Your task to perform on an android device: open app "DoorDash - Dasher" (install if not already installed) Image 0: 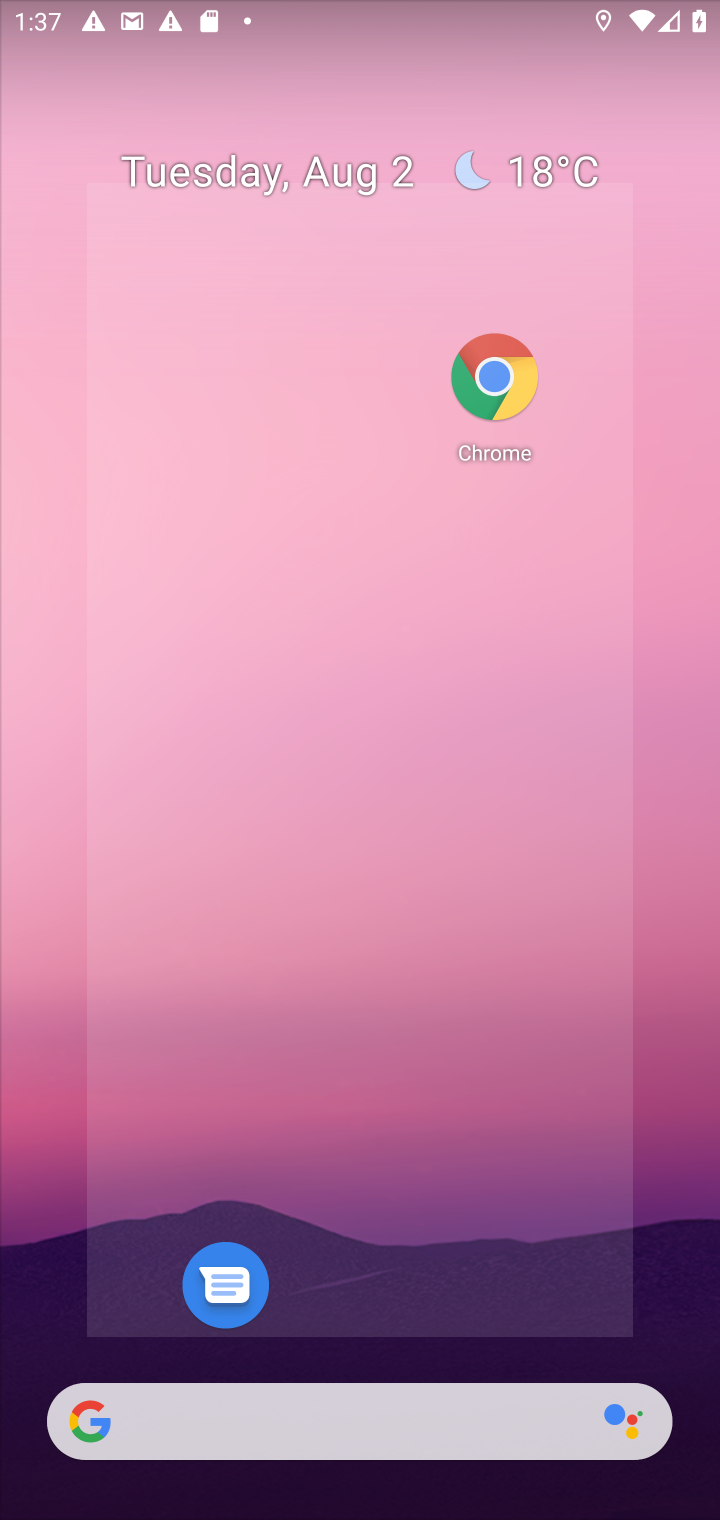
Step 0: press home button
Your task to perform on an android device: open app "DoorDash - Dasher" (install if not already installed) Image 1: 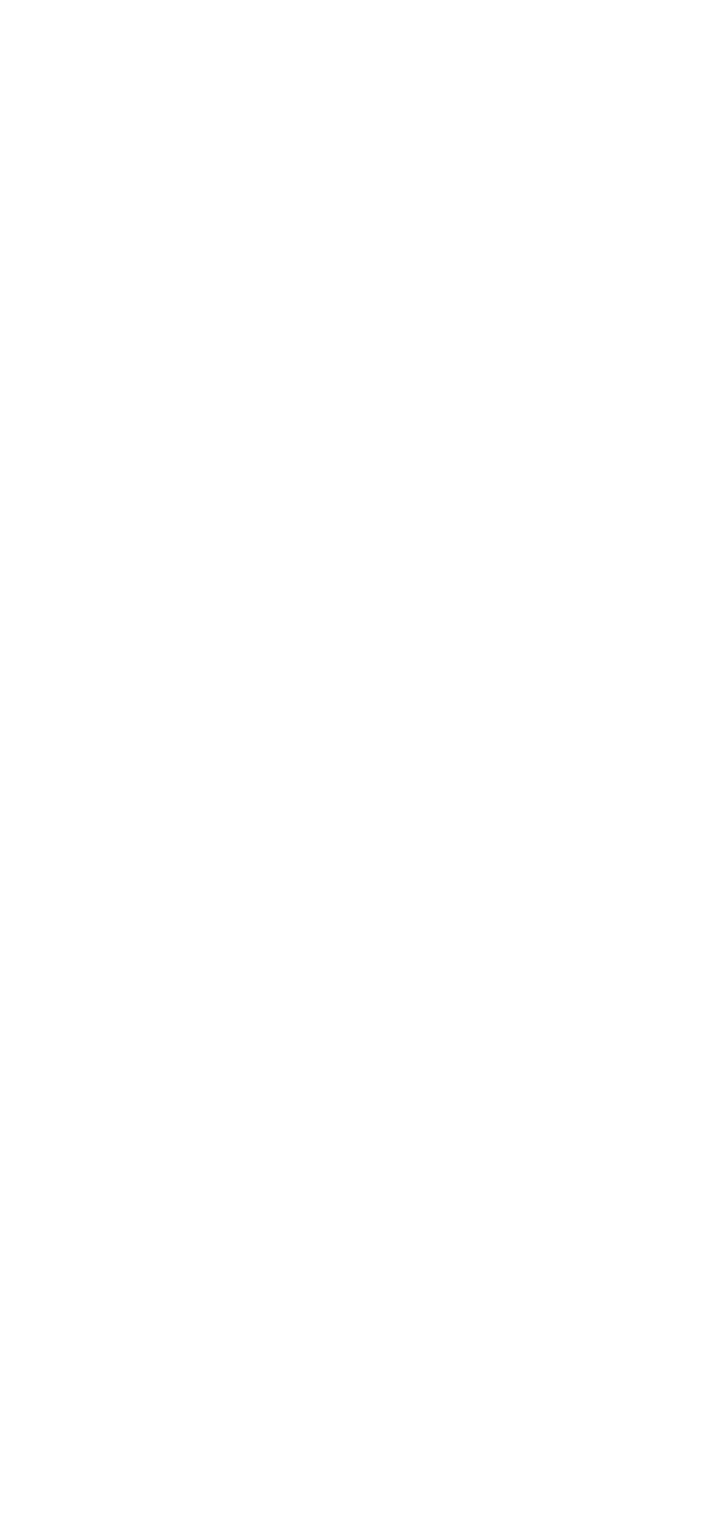
Step 1: press home button
Your task to perform on an android device: open app "DoorDash - Dasher" (install if not already installed) Image 2: 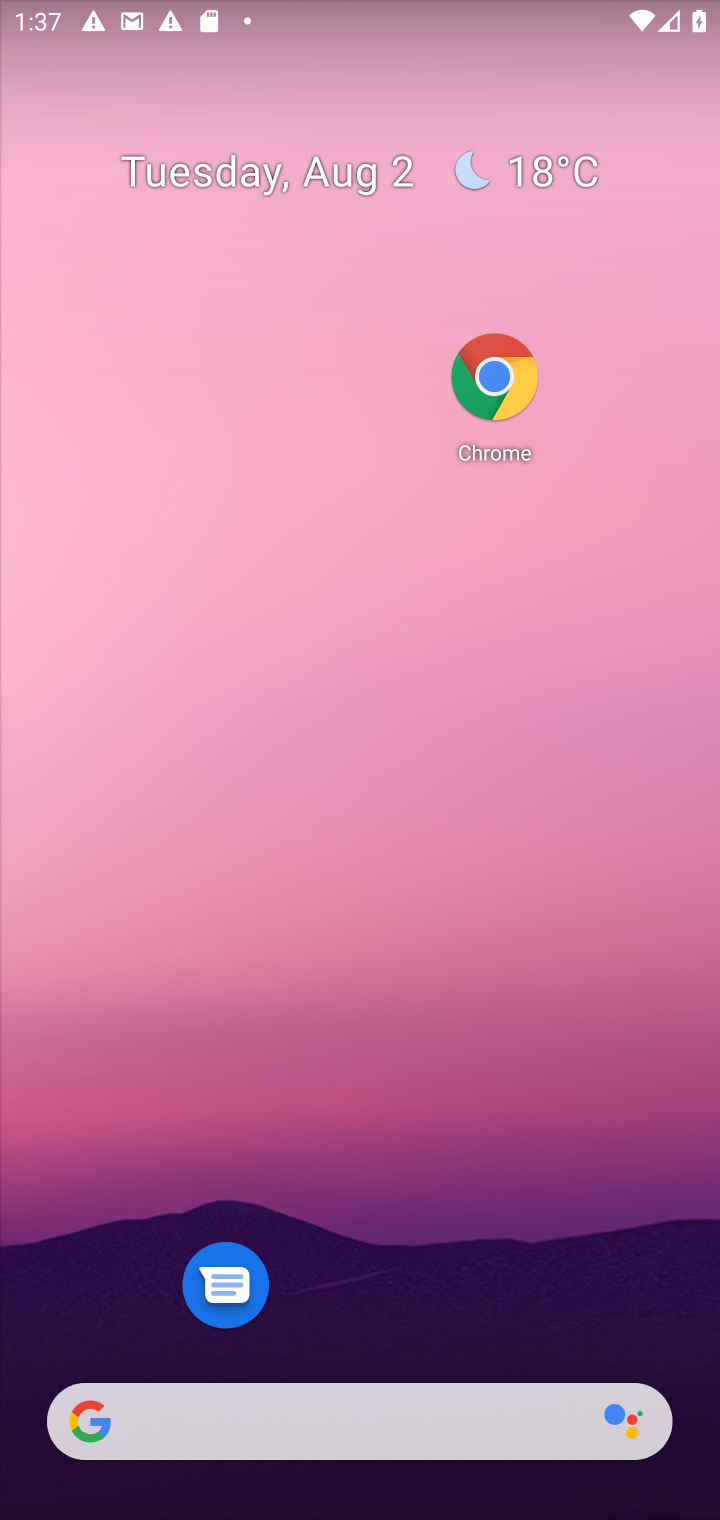
Step 2: press home button
Your task to perform on an android device: open app "DoorDash - Dasher" (install if not already installed) Image 3: 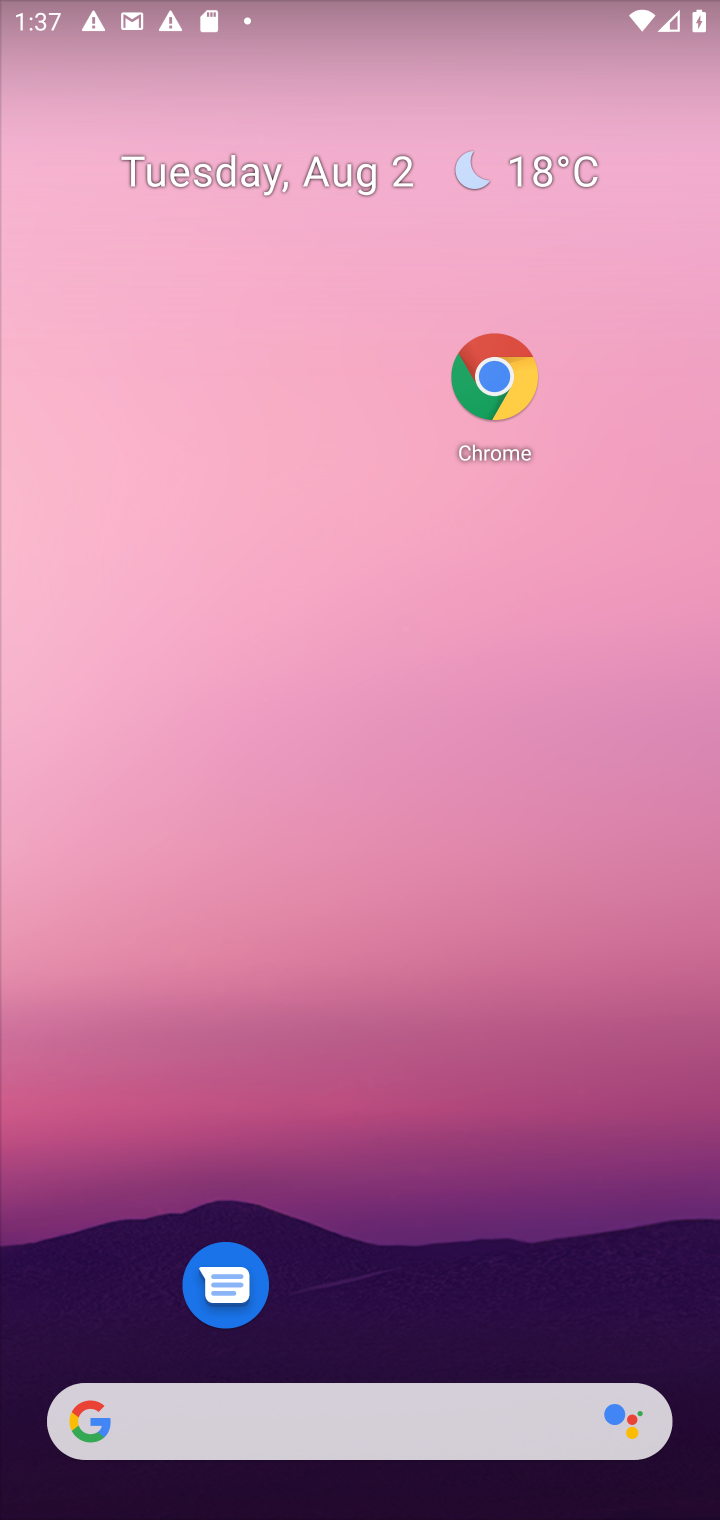
Step 3: drag from (561, 1316) to (572, 362)
Your task to perform on an android device: open app "DoorDash - Dasher" (install if not already installed) Image 4: 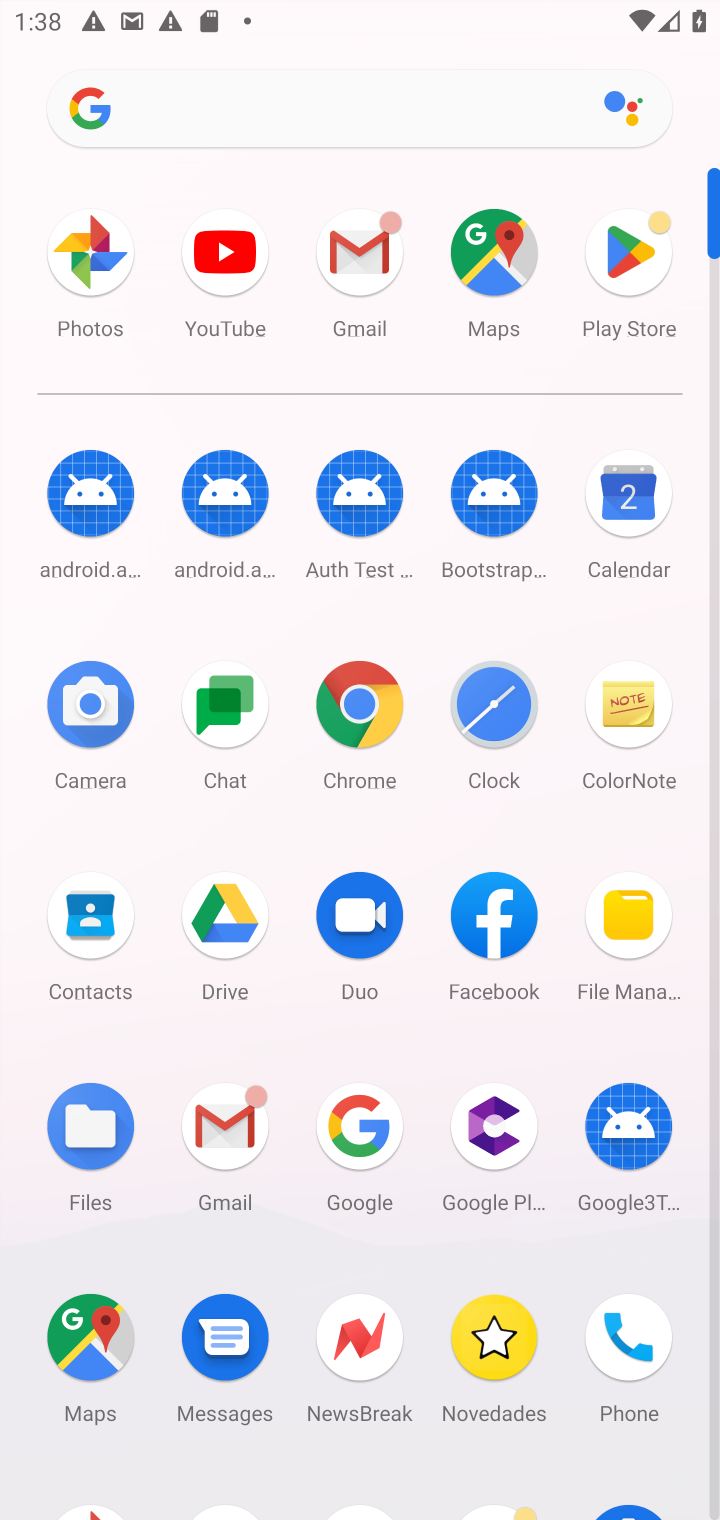
Step 4: click (641, 241)
Your task to perform on an android device: open app "DoorDash - Dasher" (install if not already installed) Image 5: 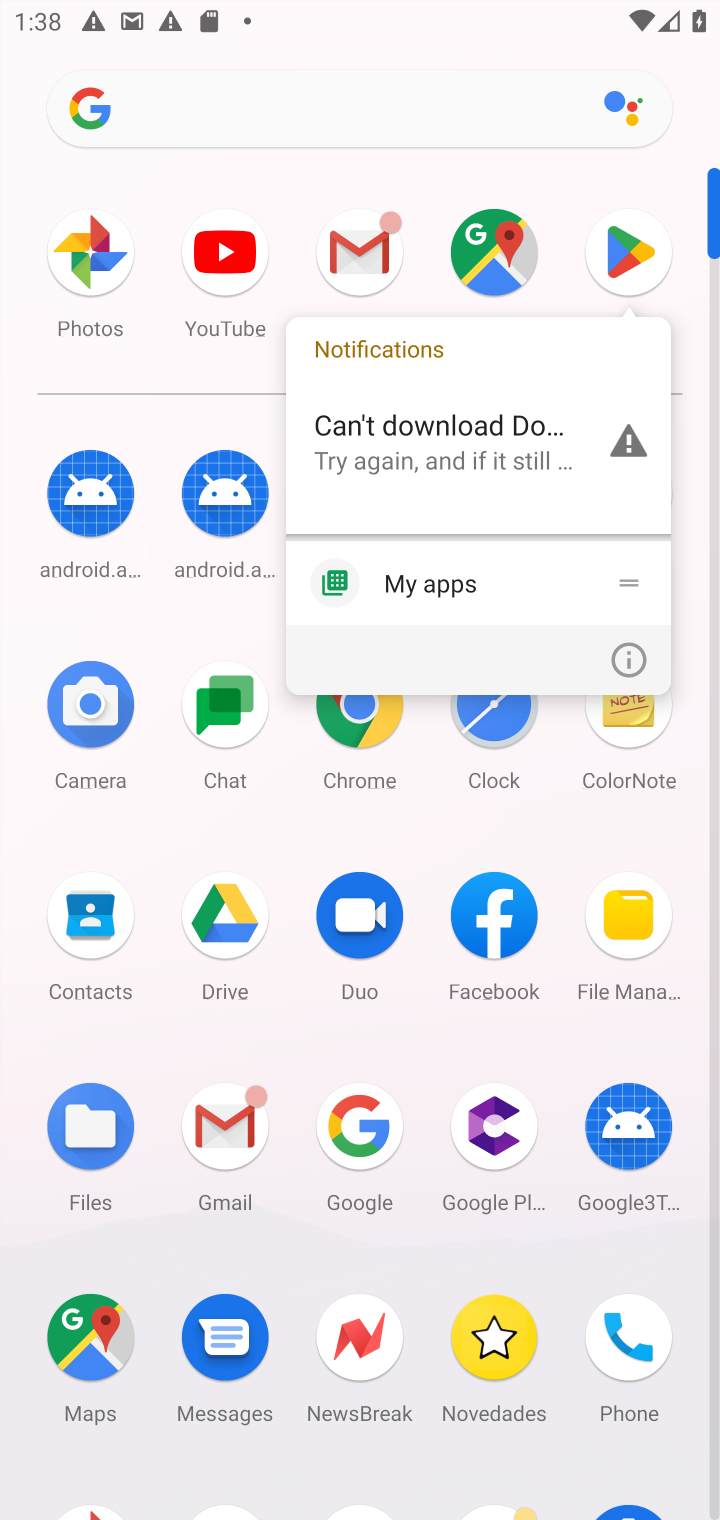
Step 5: click (641, 241)
Your task to perform on an android device: open app "DoorDash - Dasher" (install if not already installed) Image 6: 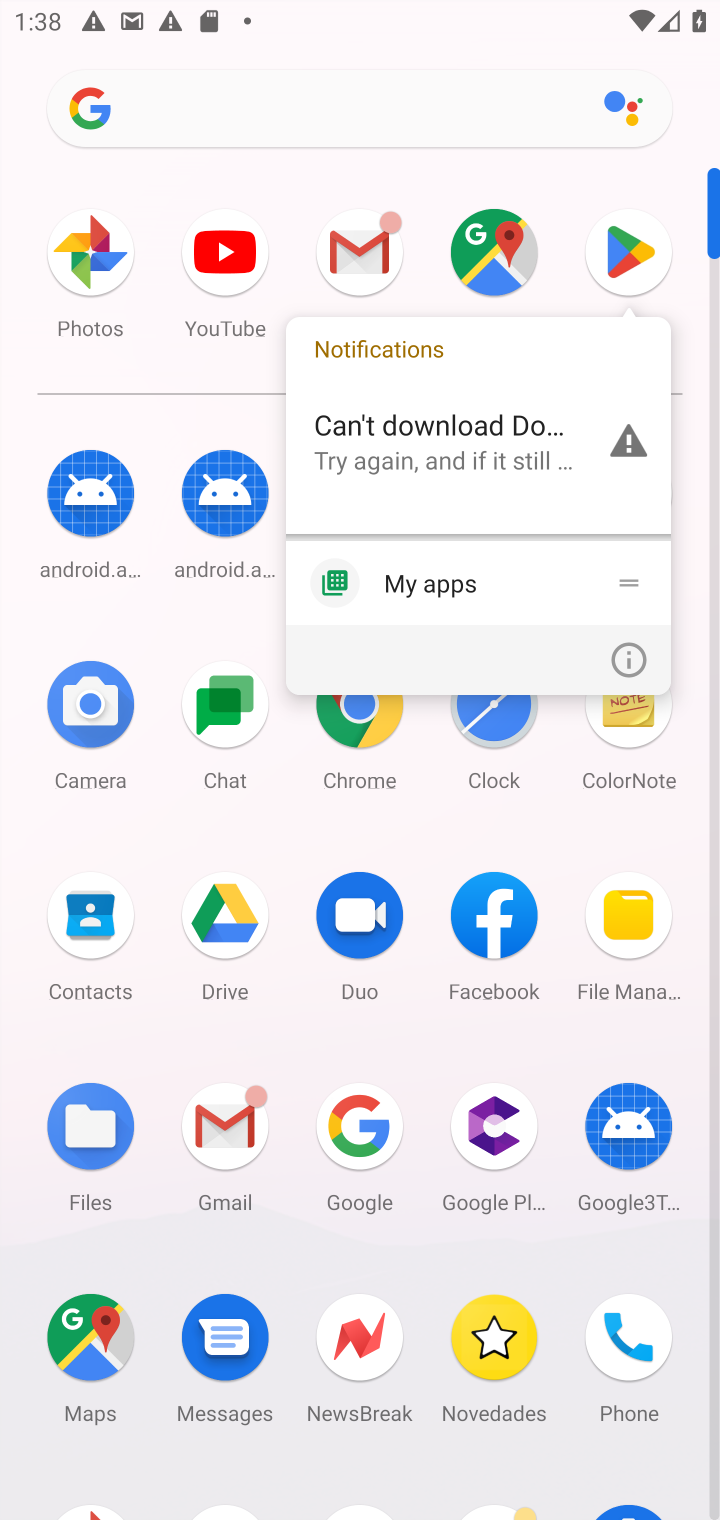
Step 6: click (641, 241)
Your task to perform on an android device: open app "DoorDash - Dasher" (install if not already installed) Image 7: 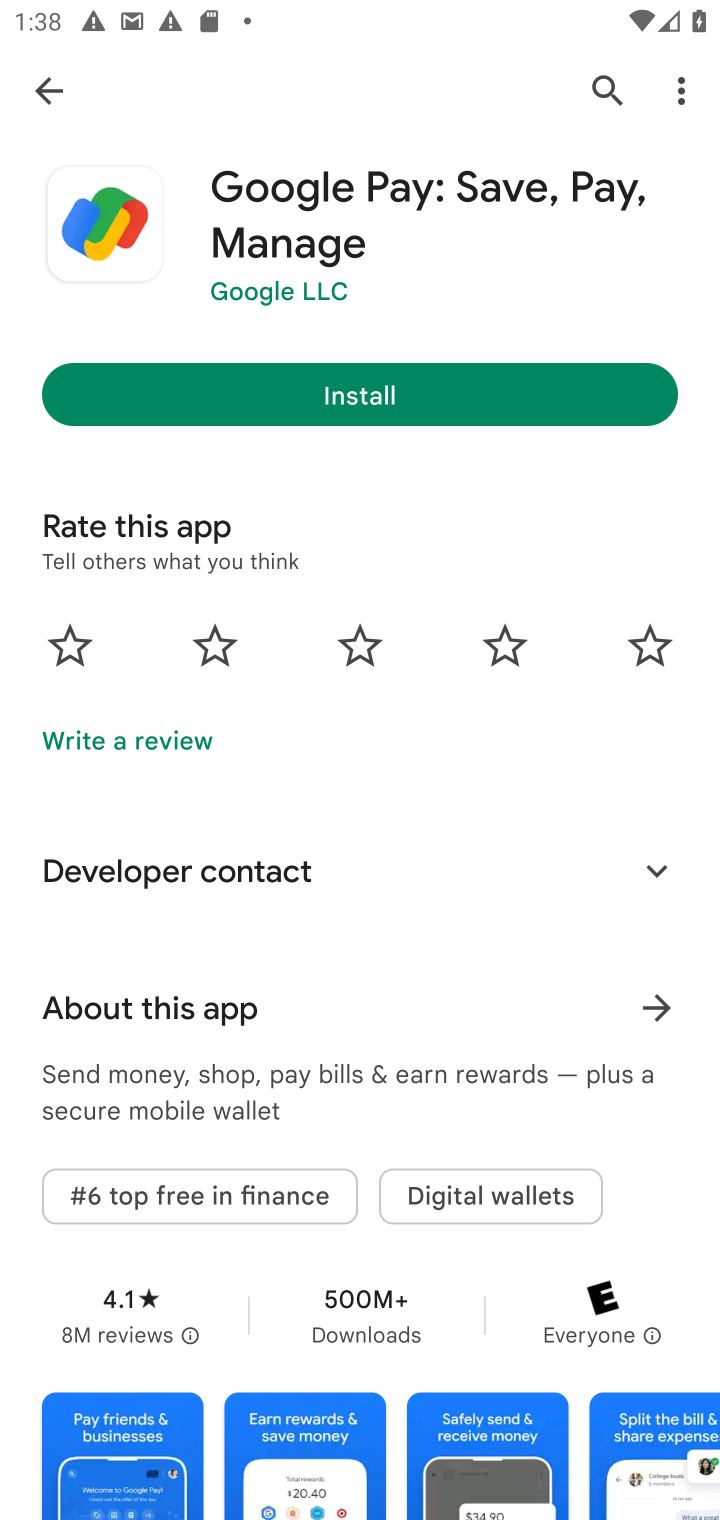
Step 7: click (591, 96)
Your task to perform on an android device: open app "DoorDash - Dasher" (install if not already installed) Image 8: 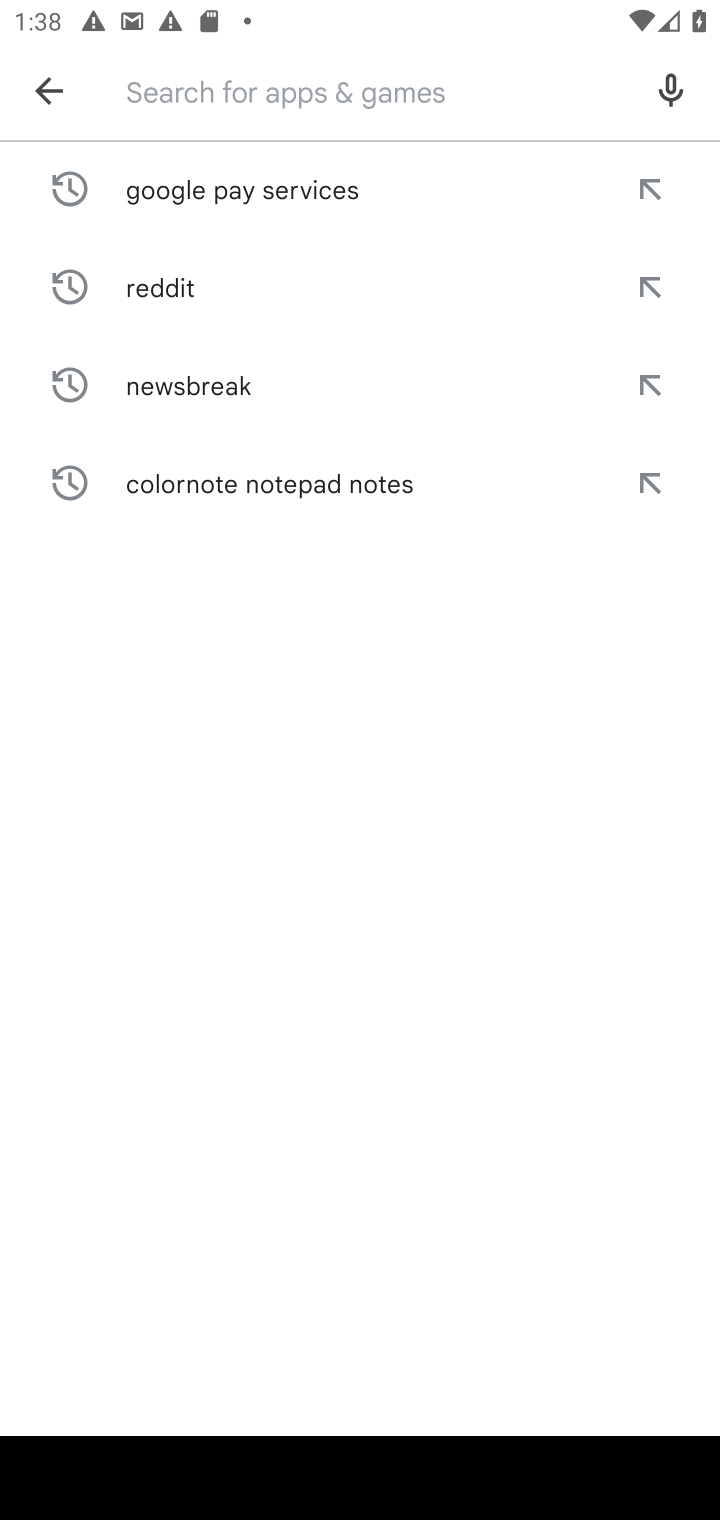
Step 8: click (243, 87)
Your task to perform on an android device: open app "DoorDash - Dasher" (install if not already installed) Image 9: 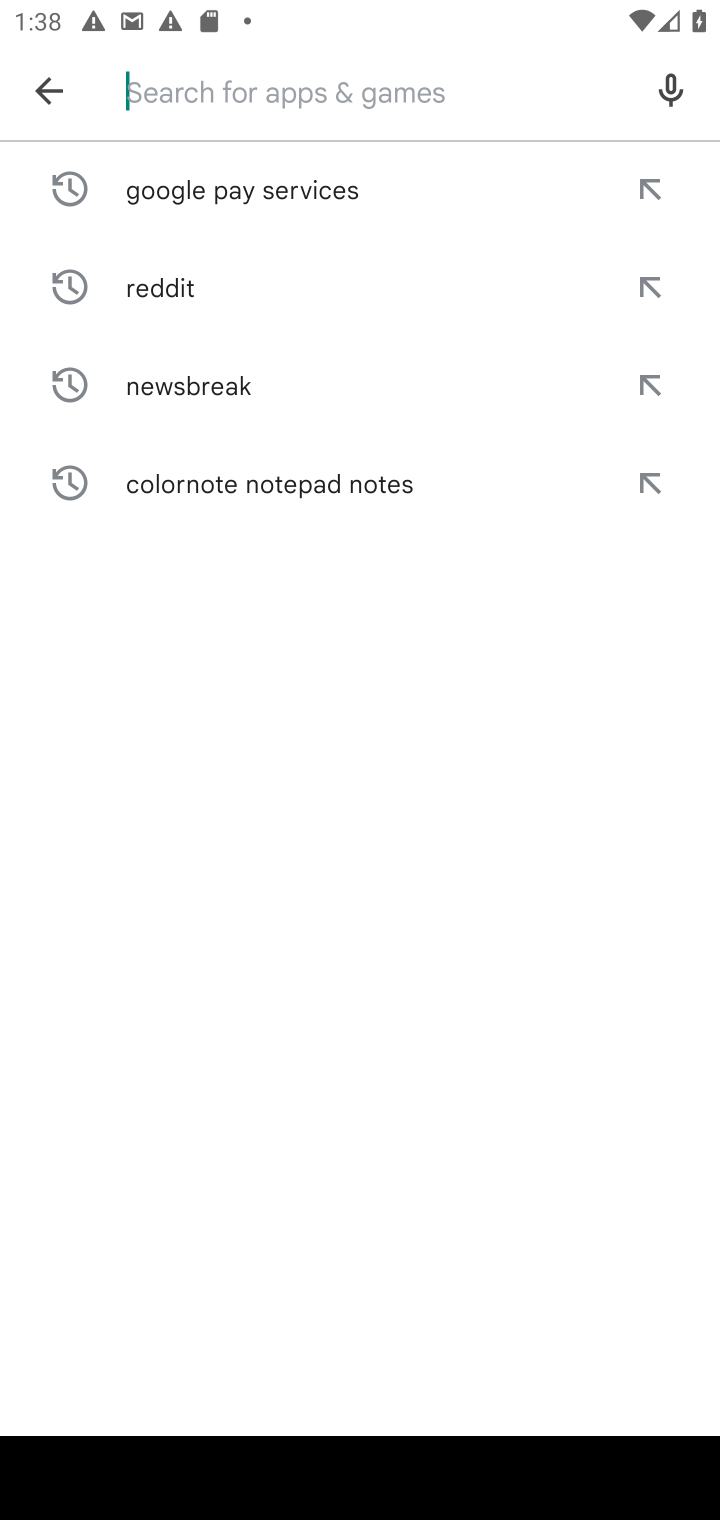
Step 9: type "DoorDash - Dasher"
Your task to perform on an android device: open app "DoorDash - Dasher" (install if not already installed) Image 10: 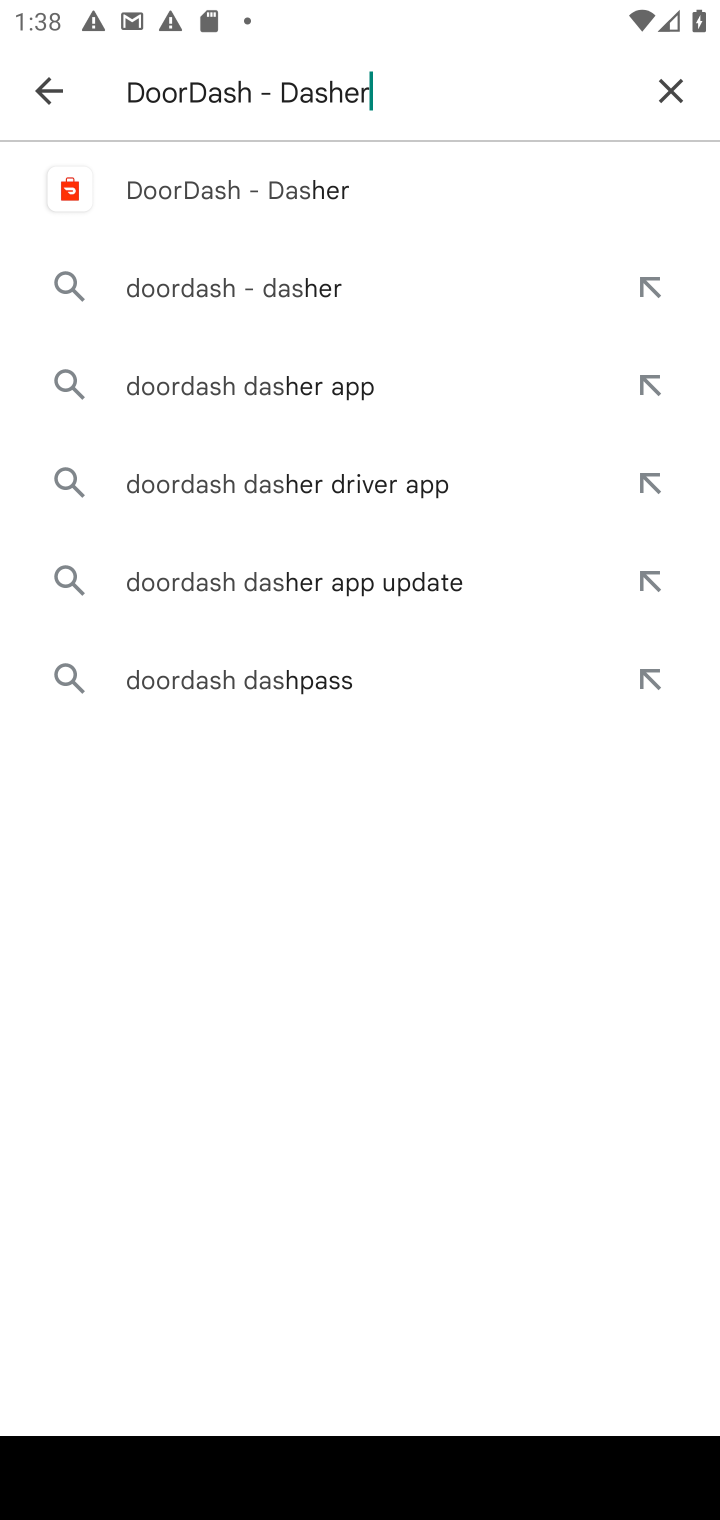
Step 10: type ""
Your task to perform on an android device: open app "DoorDash - Dasher" (install if not already installed) Image 11: 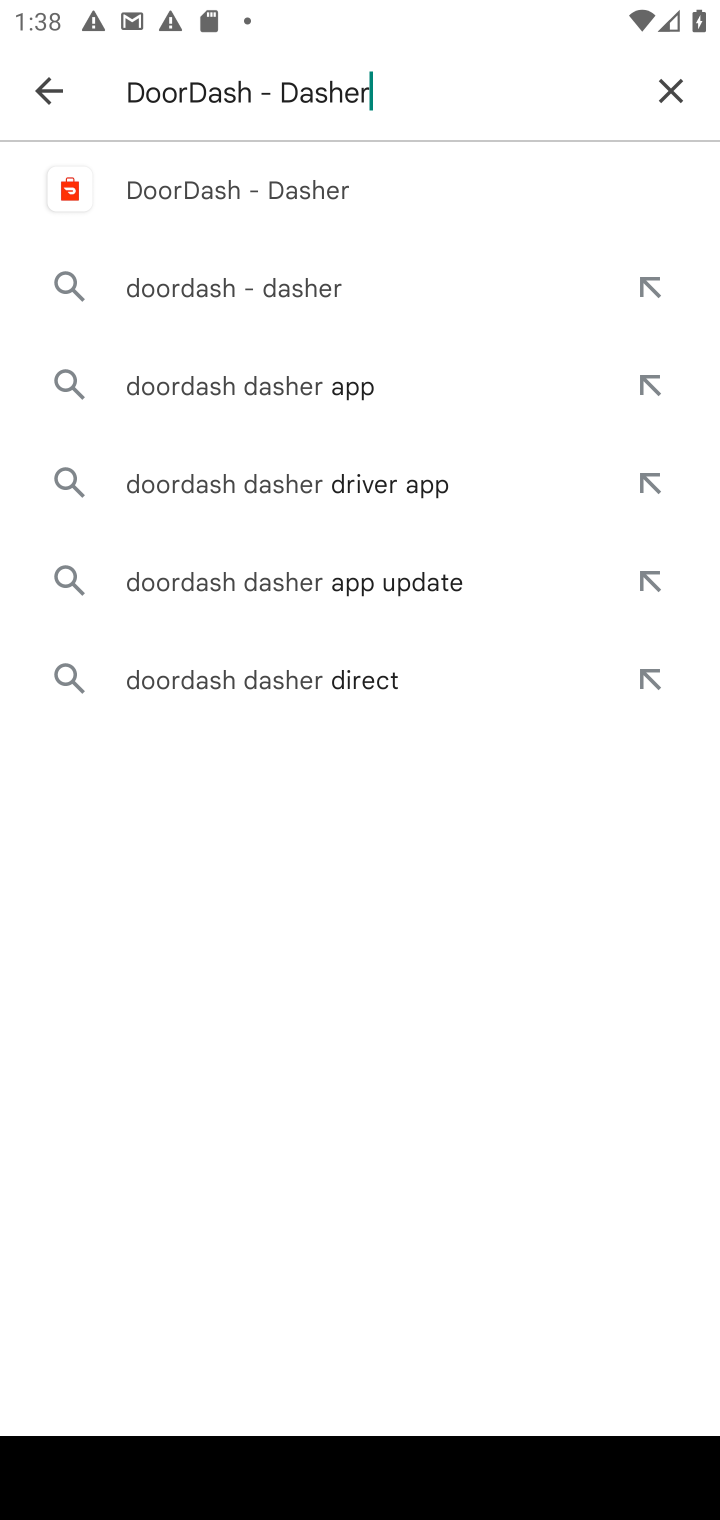
Step 11: click (268, 200)
Your task to perform on an android device: open app "DoorDash - Dasher" (install if not already installed) Image 12: 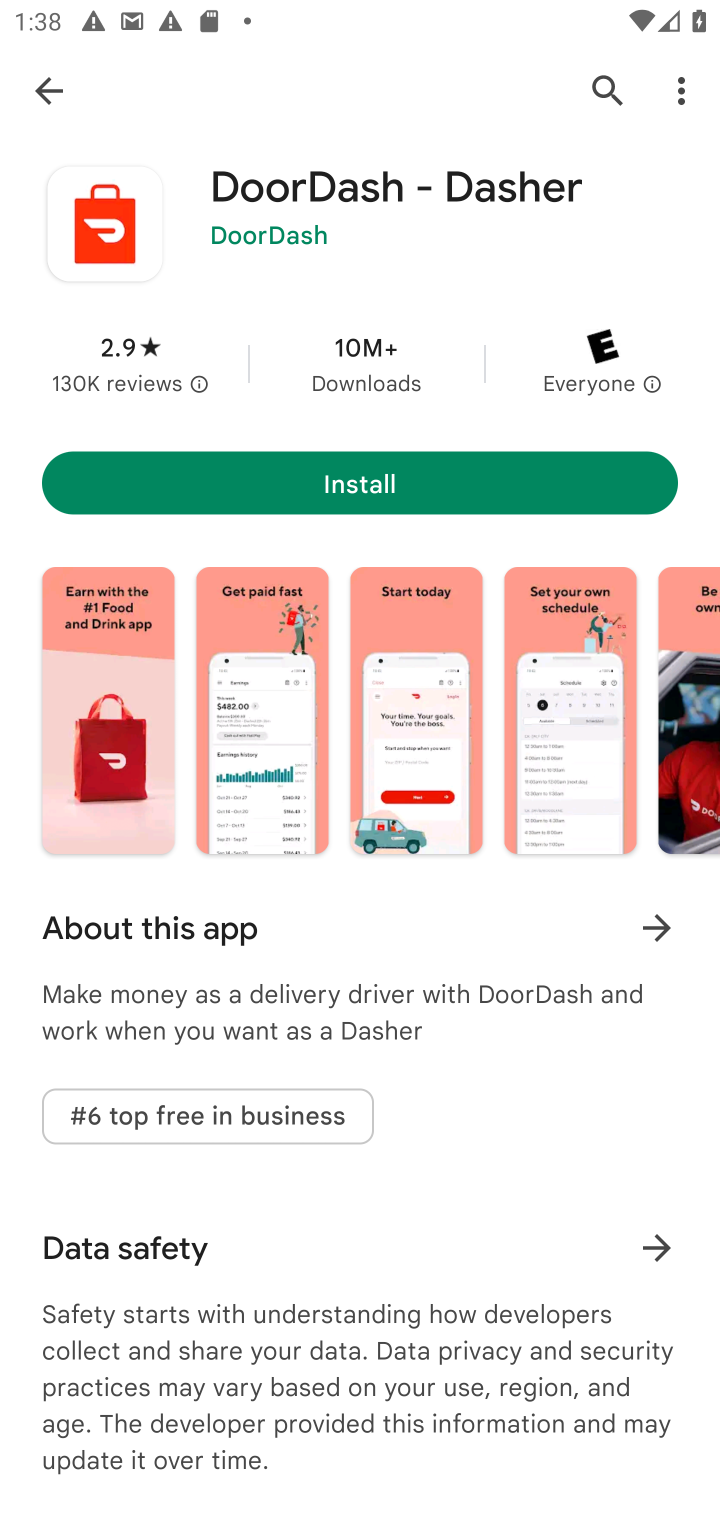
Step 12: click (366, 483)
Your task to perform on an android device: open app "DoorDash - Dasher" (install if not already installed) Image 13: 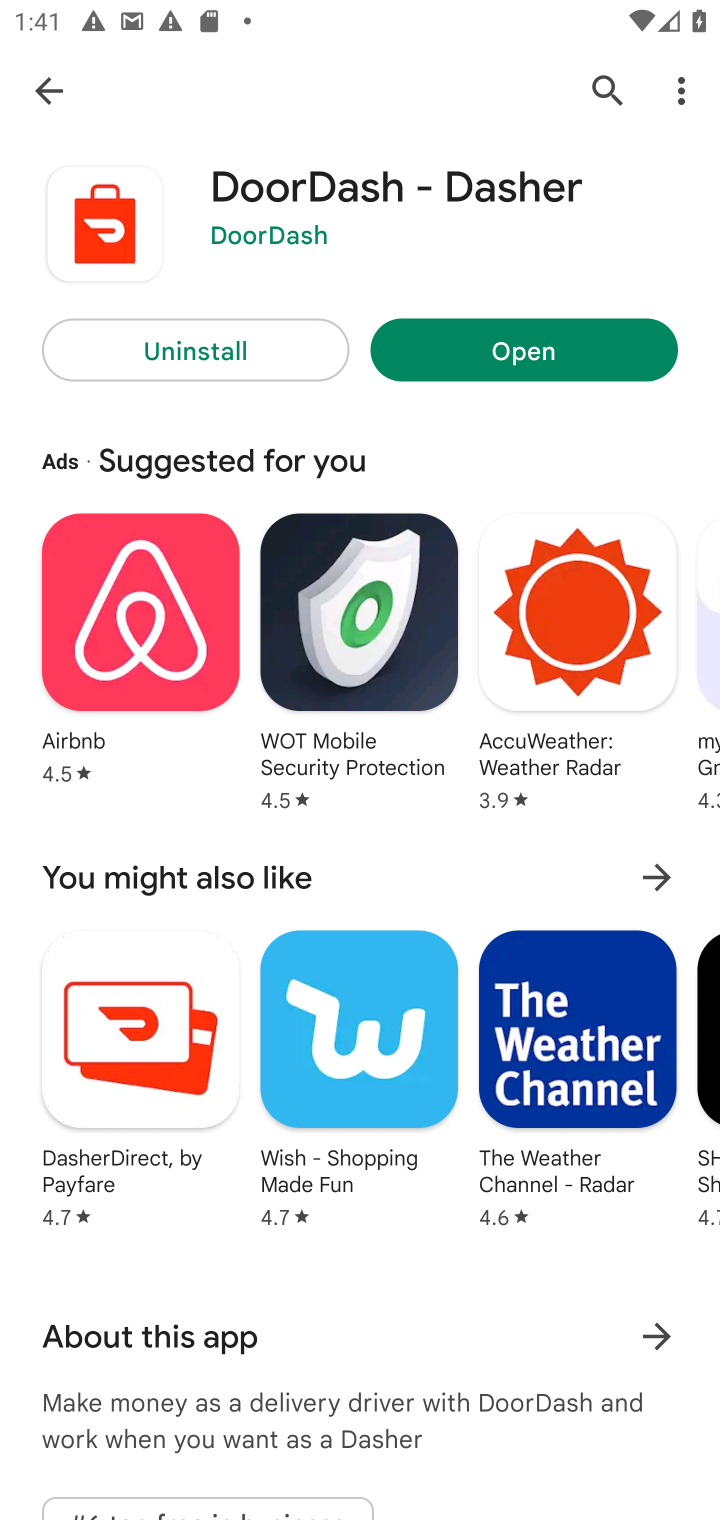
Step 13: click (638, 346)
Your task to perform on an android device: open app "DoorDash - Dasher" (install if not already installed) Image 14: 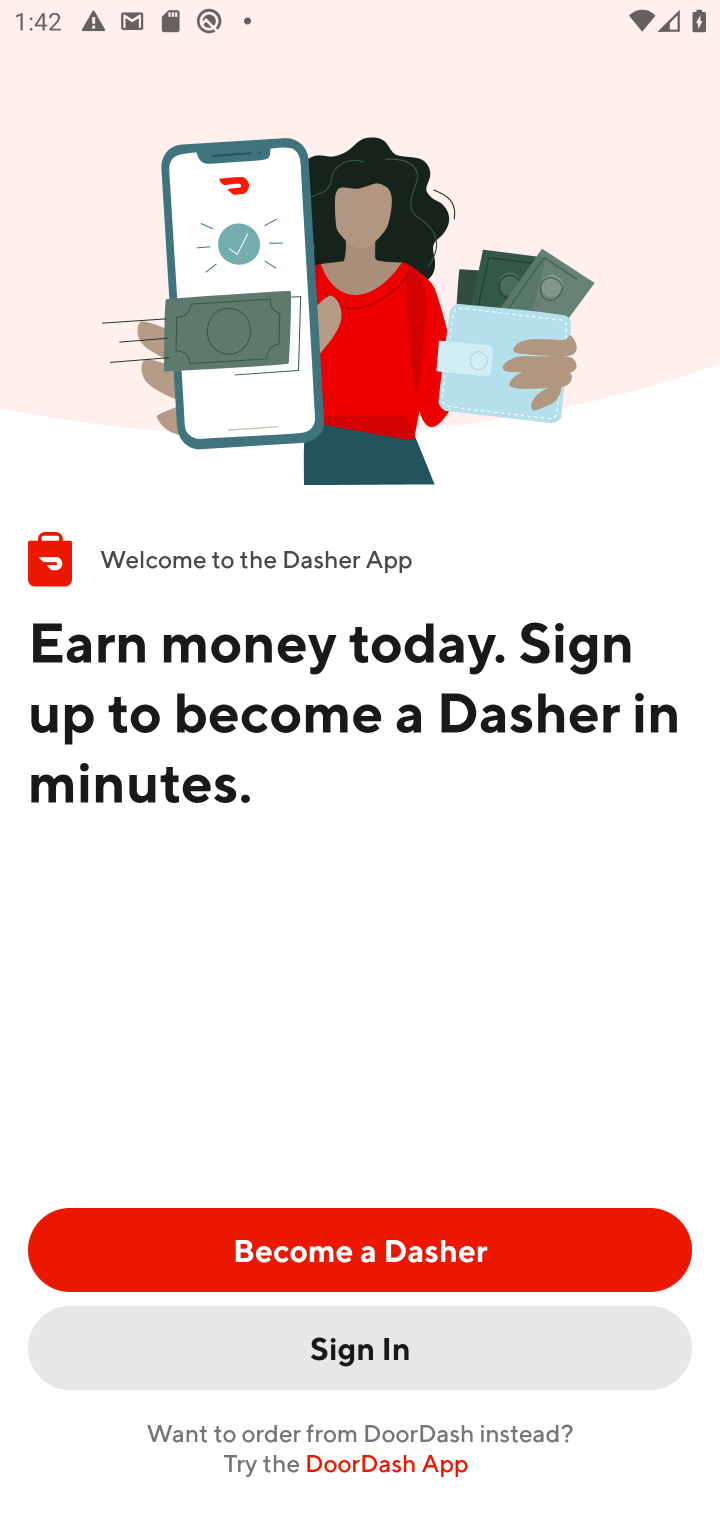
Step 14: task complete